Your task to perform on an android device: When is my next appointment? Image 0: 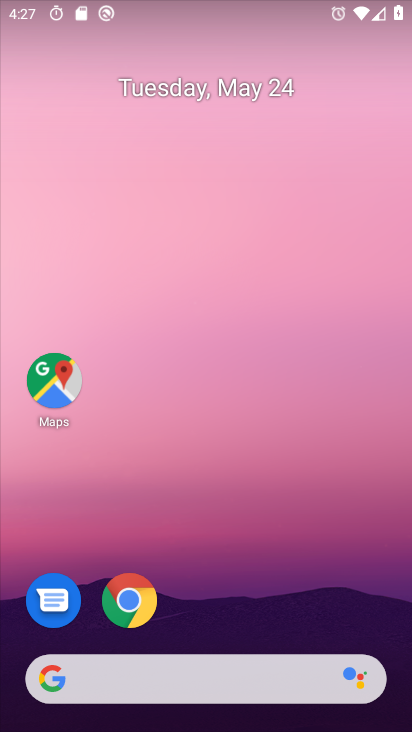
Step 0: drag from (219, 650) to (166, 101)
Your task to perform on an android device: When is my next appointment? Image 1: 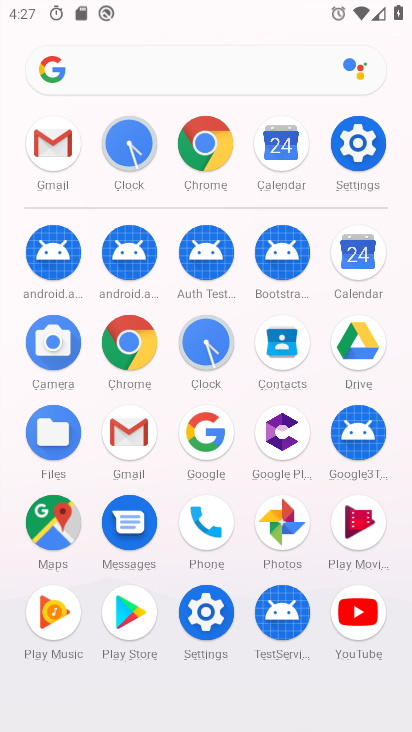
Step 1: click (365, 270)
Your task to perform on an android device: When is my next appointment? Image 2: 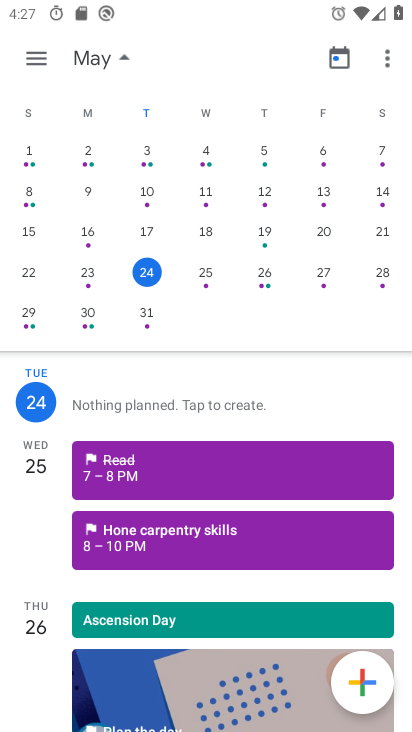
Step 2: click (205, 270)
Your task to perform on an android device: When is my next appointment? Image 3: 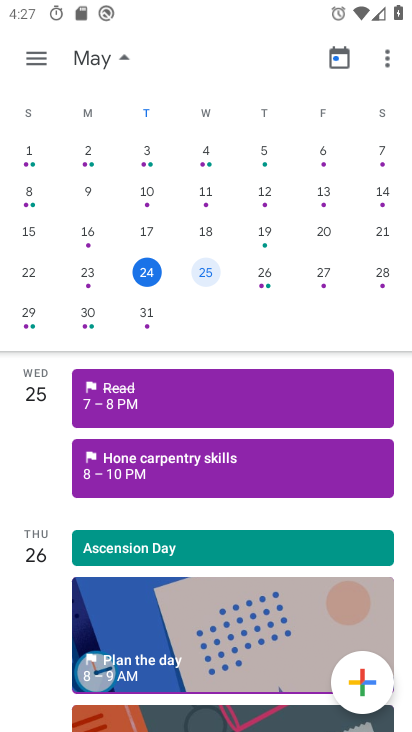
Step 3: task complete